Your task to perform on an android device: Open Yahoo.com Image 0: 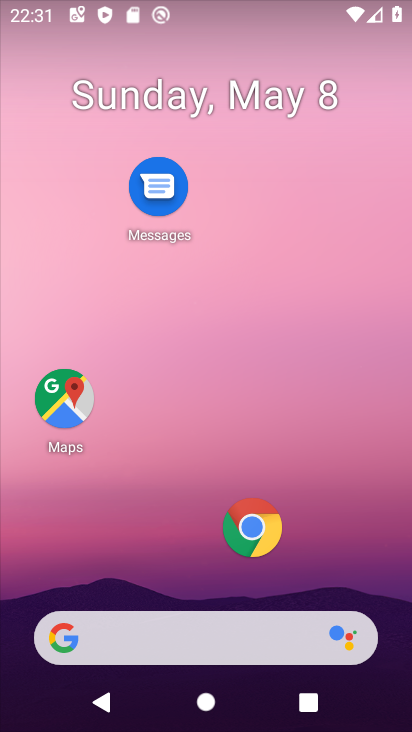
Step 0: click (259, 527)
Your task to perform on an android device: Open Yahoo.com Image 1: 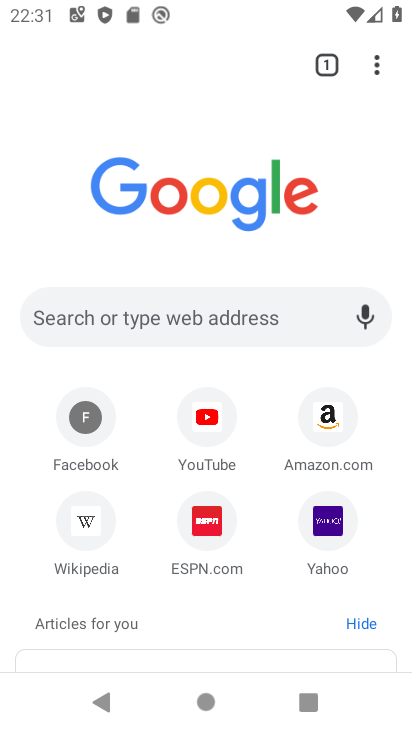
Step 1: click (326, 523)
Your task to perform on an android device: Open Yahoo.com Image 2: 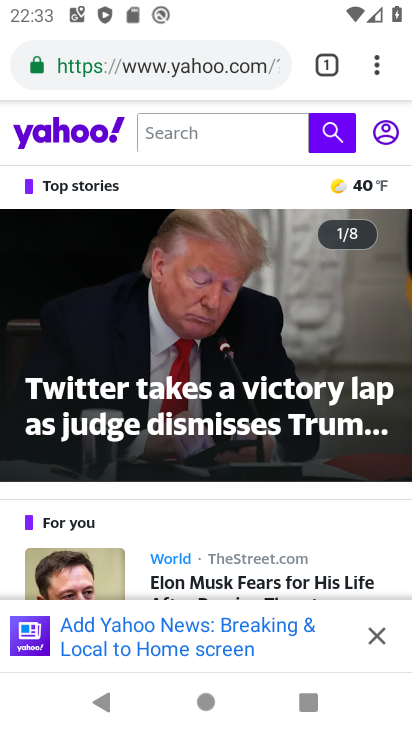
Step 2: task complete